Your task to perform on an android device: change alarm snooze length Image 0: 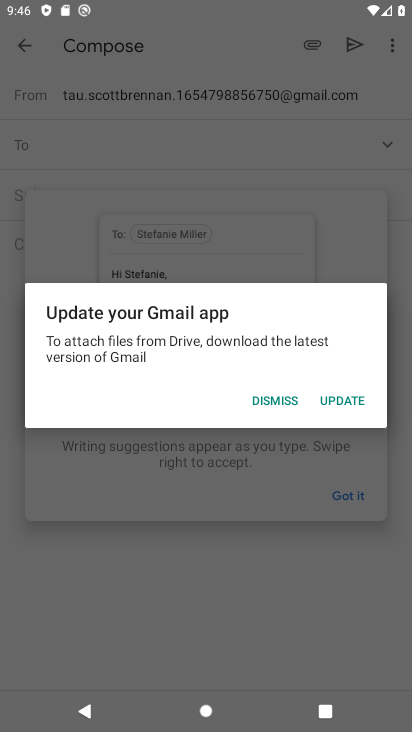
Step 0: press home button
Your task to perform on an android device: change alarm snooze length Image 1: 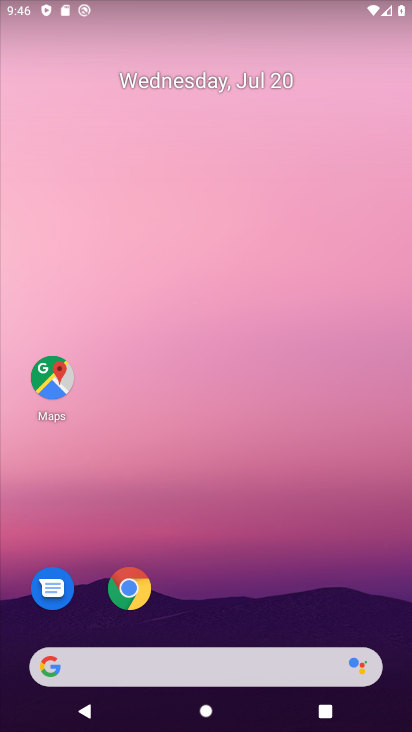
Step 1: drag from (380, 623) to (357, 101)
Your task to perform on an android device: change alarm snooze length Image 2: 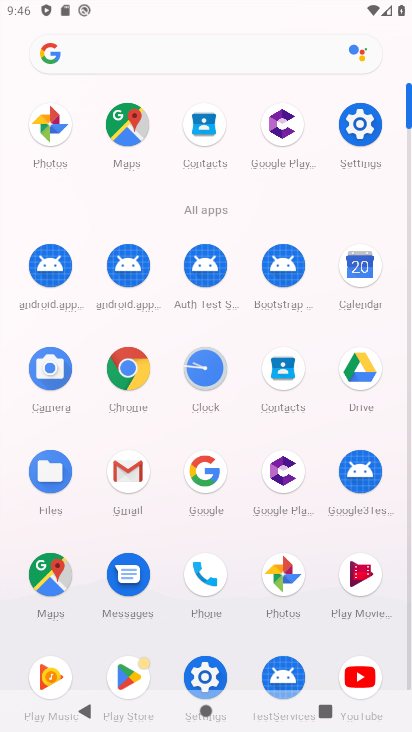
Step 2: click (203, 370)
Your task to perform on an android device: change alarm snooze length Image 3: 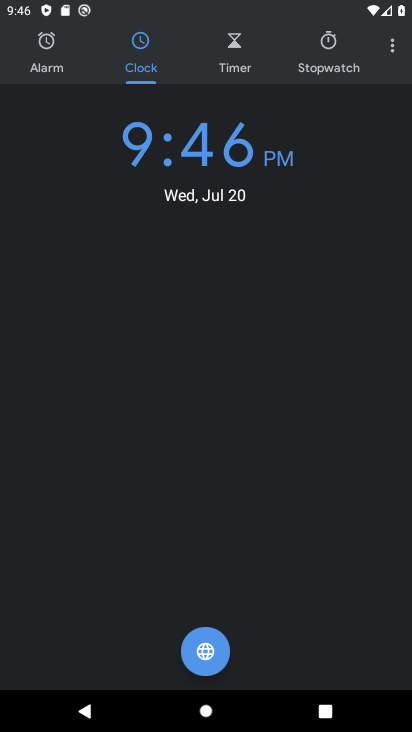
Step 3: click (389, 53)
Your task to perform on an android device: change alarm snooze length Image 4: 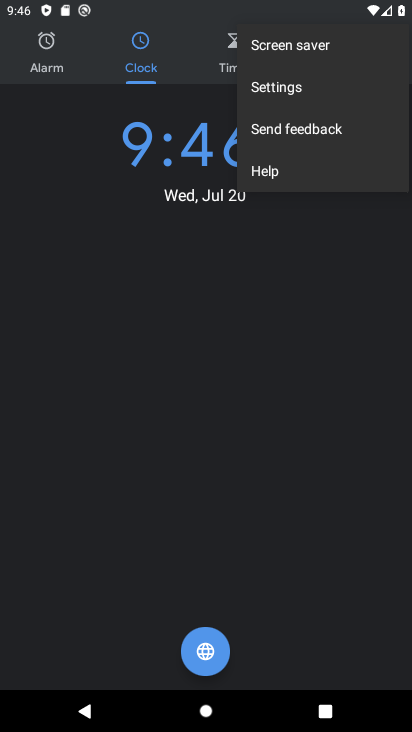
Step 4: click (272, 86)
Your task to perform on an android device: change alarm snooze length Image 5: 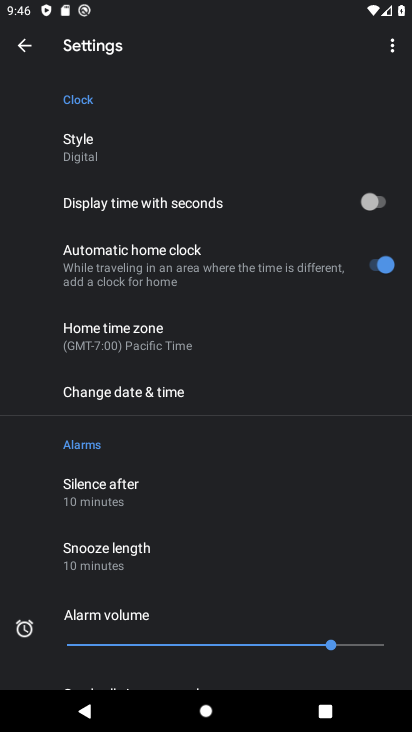
Step 5: click (120, 545)
Your task to perform on an android device: change alarm snooze length Image 6: 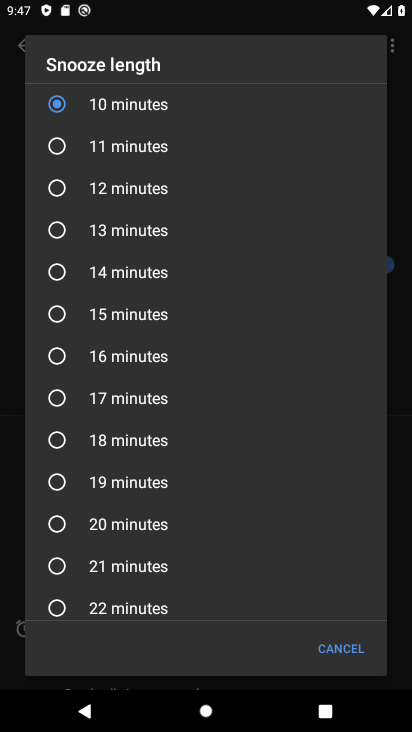
Step 6: click (63, 308)
Your task to perform on an android device: change alarm snooze length Image 7: 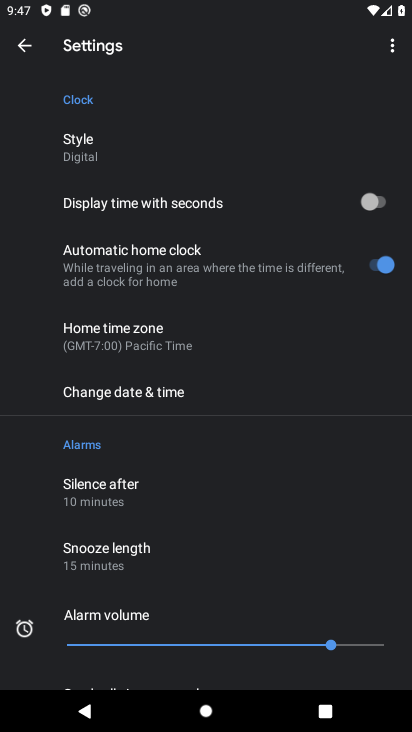
Step 7: task complete